Your task to perform on an android device: set the timer Image 0: 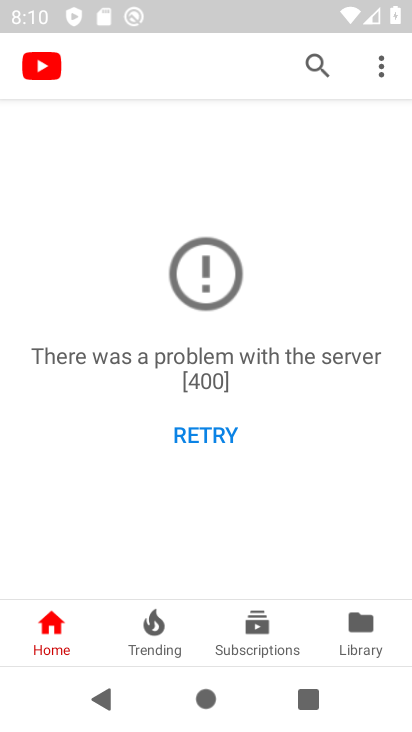
Step 0: press home button
Your task to perform on an android device: set the timer Image 1: 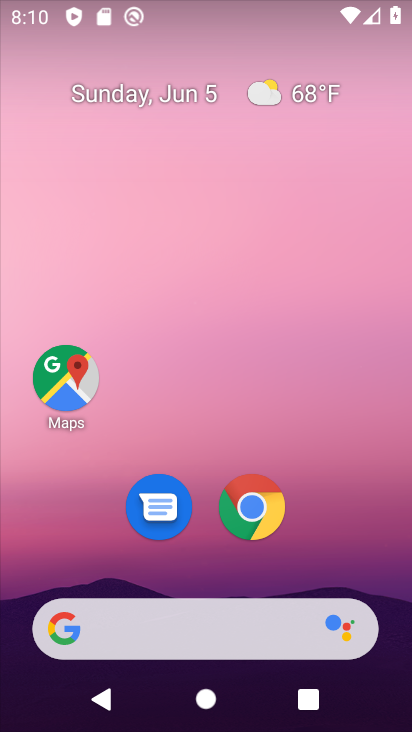
Step 1: drag from (218, 581) to (272, 77)
Your task to perform on an android device: set the timer Image 2: 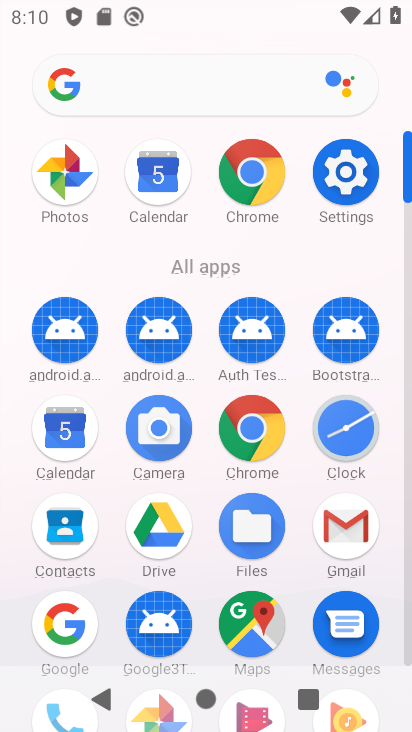
Step 2: click (365, 433)
Your task to perform on an android device: set the timer Image 3: 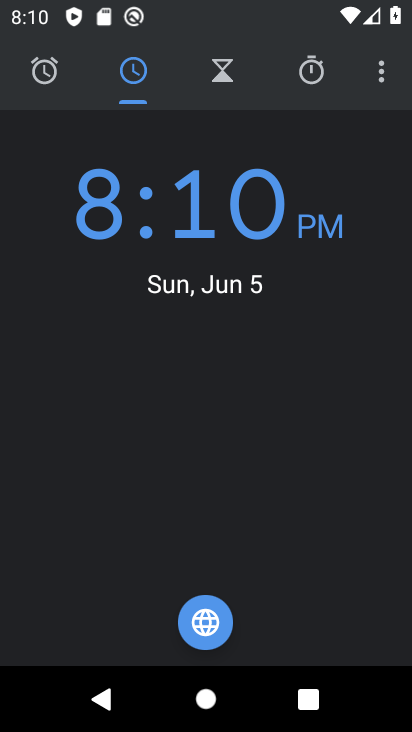
Step 3: click (230, 73)
Your task to perform on an android device: set the timer Image 4: 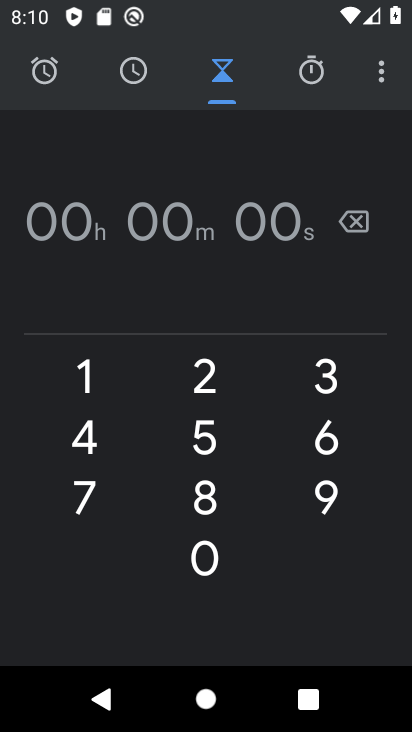
Step 4: click (204, 502)
Your task to perform on an android device: set the timer Image 5: 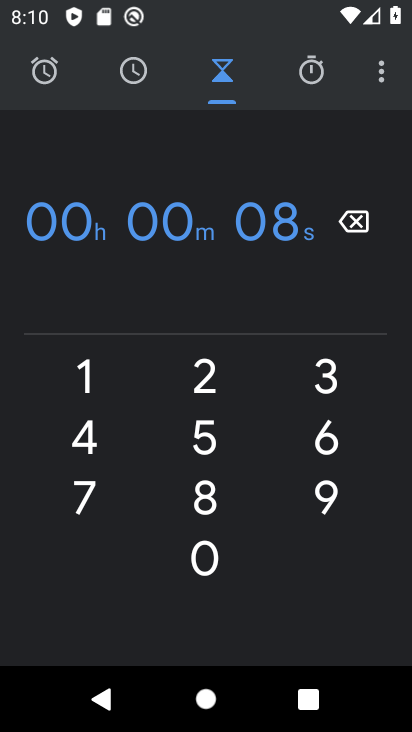
Step 5: click (204, 415)
Your task to perform on an android device: set the timer Image 6: 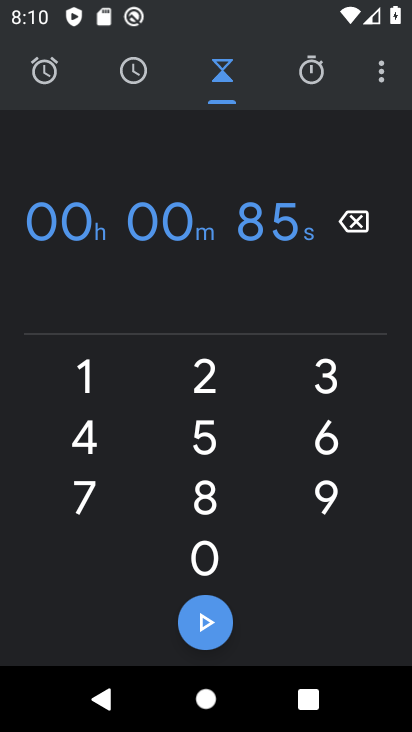
Step 6: click (74, 493)
Your task to perform on an android device: set the timer Image 7: 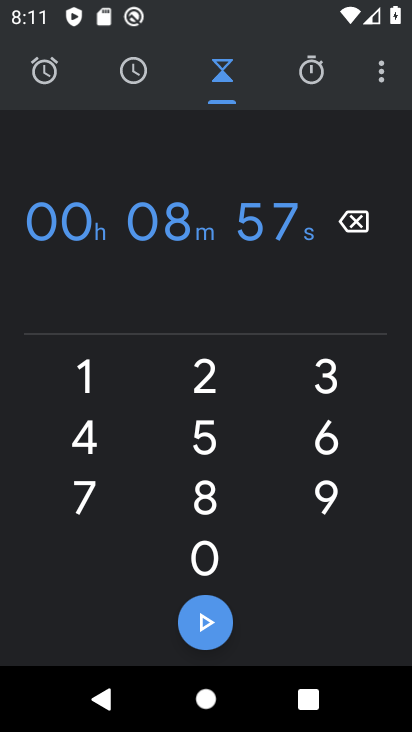
Step 7: click (215, 623)
Your task to perform on an android device: set the timer Image 8: 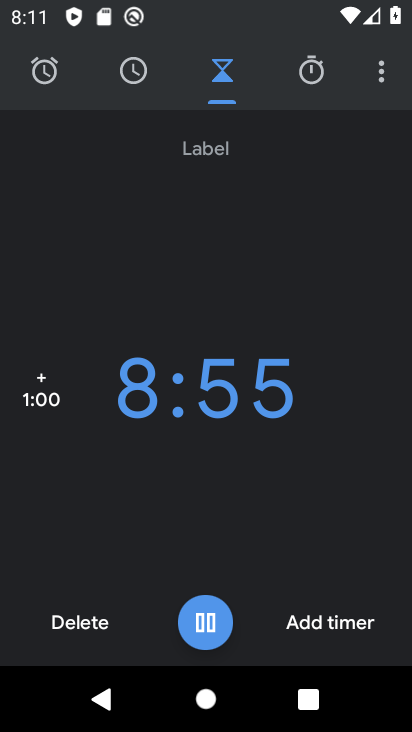
Step 8: task complete